Your task to perform on an android device: delete browsing data in the chrome app Image 0: 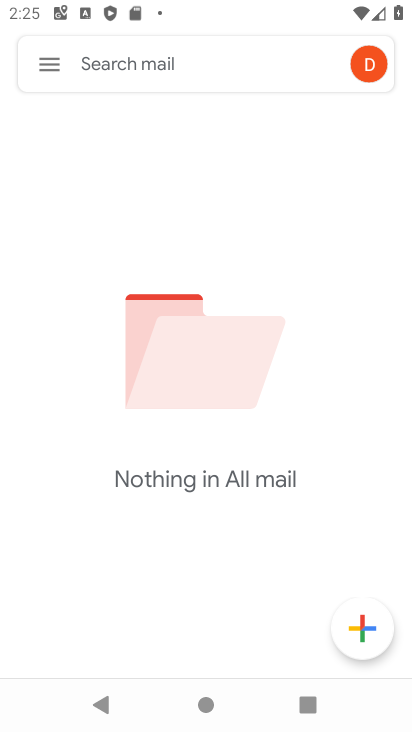
Step 0: press home button
Your task to perform on an android device: delete browsing data in the chrome app Image 1: 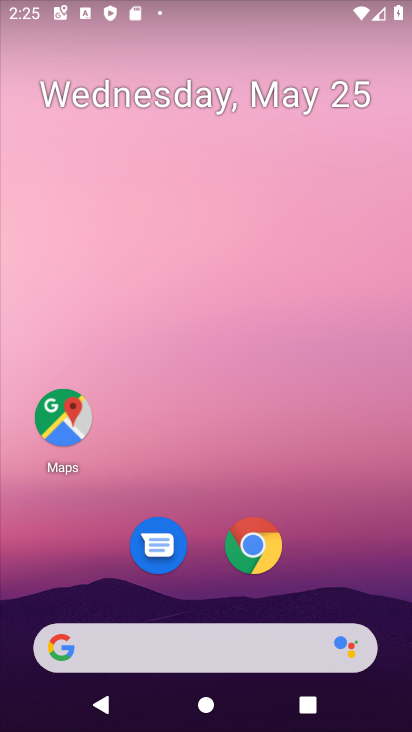
Step 1: click (268, 541)
Your task to perform on an android device: delete browsing data in the chrome app Image 2: 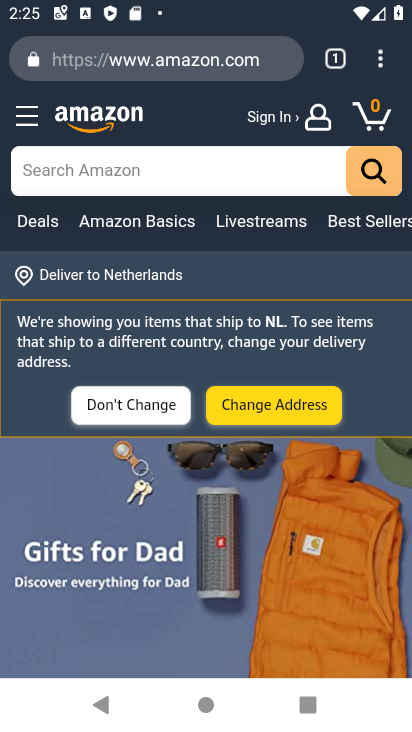
Step 2: click (377, 67)
Your task to perform on an android device: delete browsing data in the chrome app Image 3: 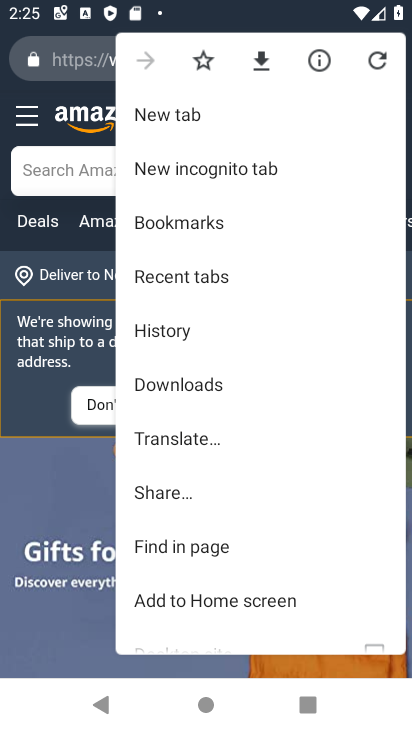
Step 3: click (203, 320)
Your task to perform on an android device: delete browsing data in the chrome app Image 4: 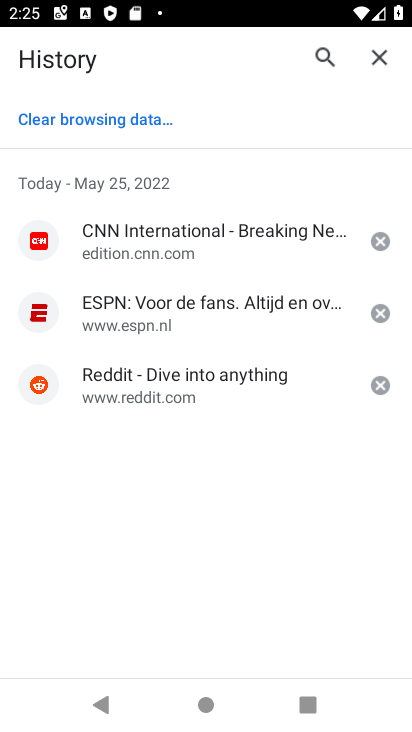
Step 4: click (54, 130)
Your task to perform on an android device: delete browsing data in the chrome app Image 5: 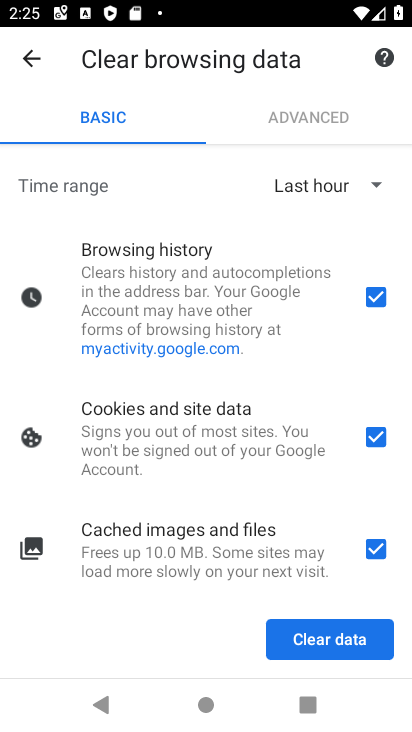
Step 5: click (329, 628)
Your task to perform on an android device: delete browsing data in the chrome app Image 6: 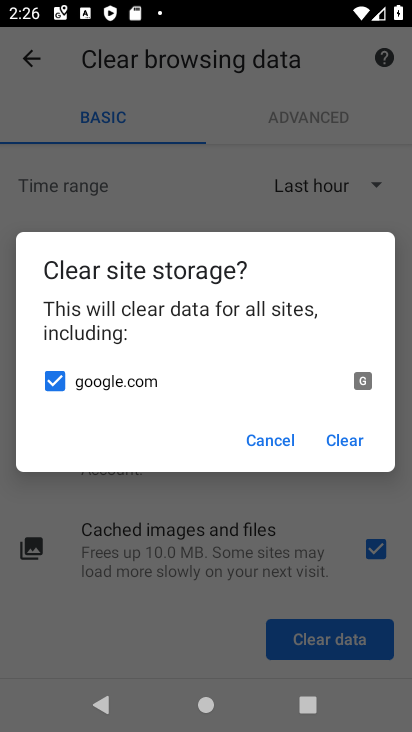
Step 6: click (334, 439)
Your task to perform on an android device: delete browsing data in the chrome app Image 7: 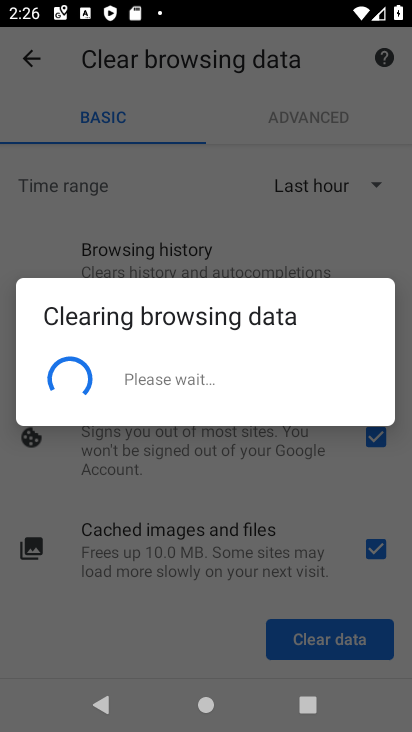
Step 7: task complete